Your task to perform on an android device: check data usage Image 0: 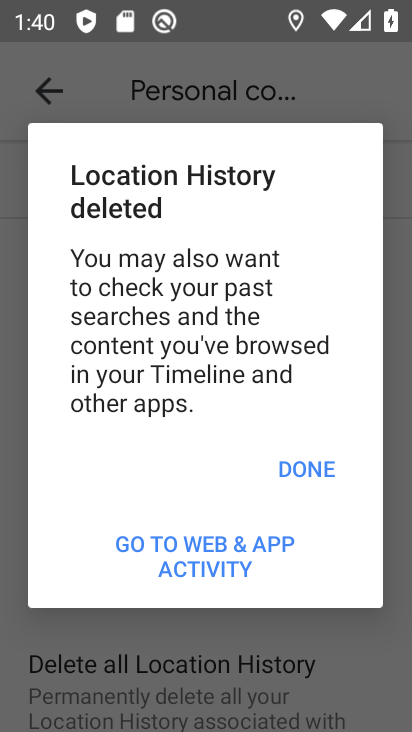
Step 0: press home button
Your task to perform on an android device: check data usage Image 1: 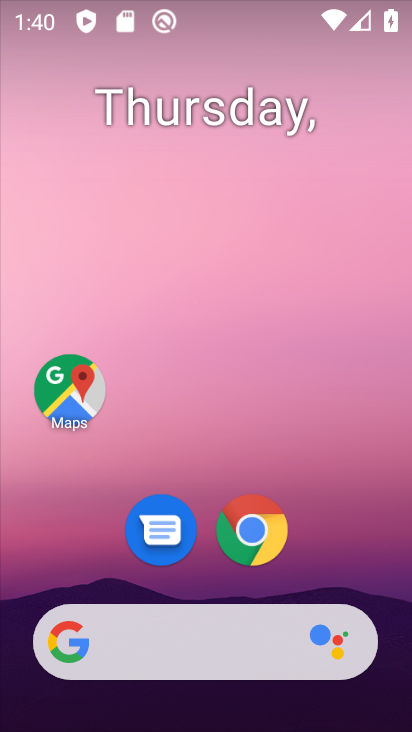
Step 1: drag from (253, 681) to (242, 4)
Your task to perform on an android device: check data usage Image 2: 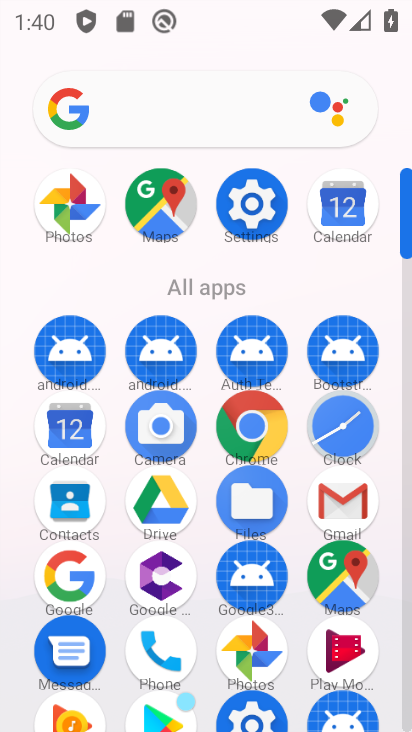
Step 2: click (251, 200)
Your task to perform on an android device: check data usage Image 3: 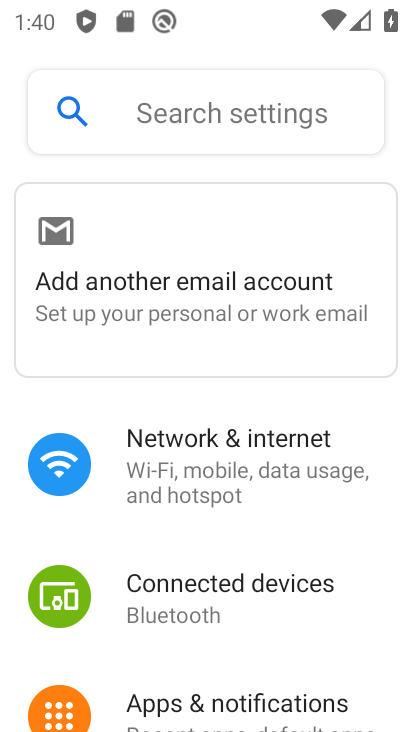
Step 3: click (317, 450)
Your task to perform on an android device: check data usage Image 4: 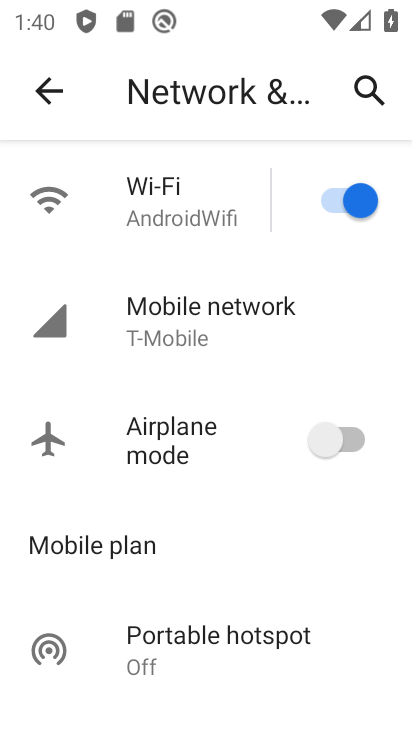
Step 4: click (186, 343)
Your task to perform on an android device: check data usage Image 5: 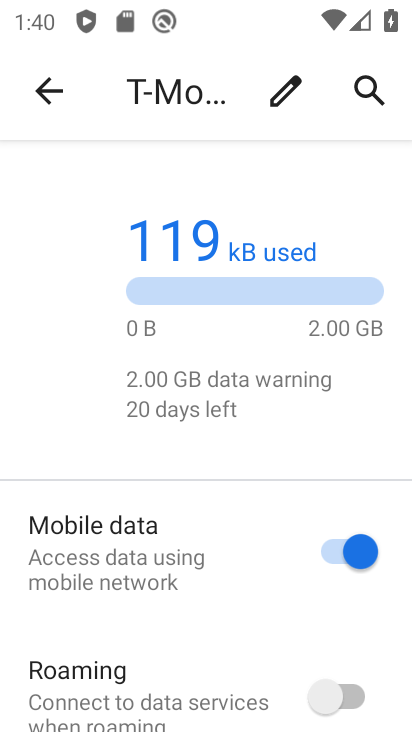
Step 5: task complete